Your task to perform on an android device: change notifications settings Image 0: 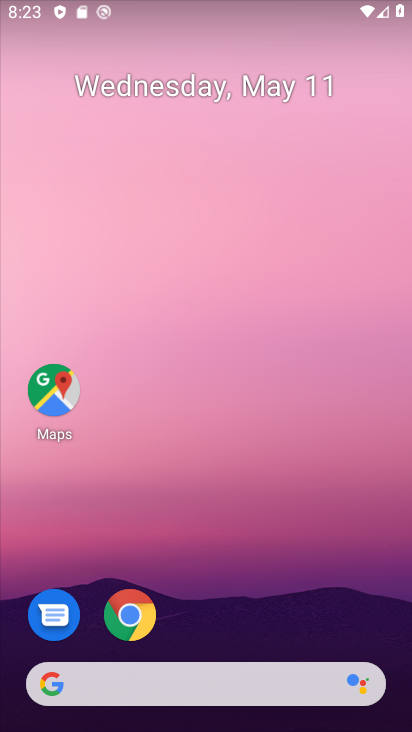
Step 0: drag from (299, 532) to (295, 24)
Your task to perform on an android device: change notifications settings Image 1: 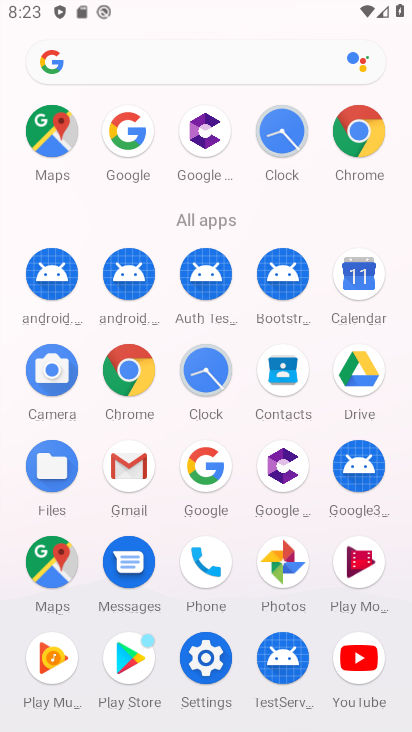
Step 1: drag from (406, 634) to (391, 317)
Your task to perform on an android device: change notifications settings Image 2: 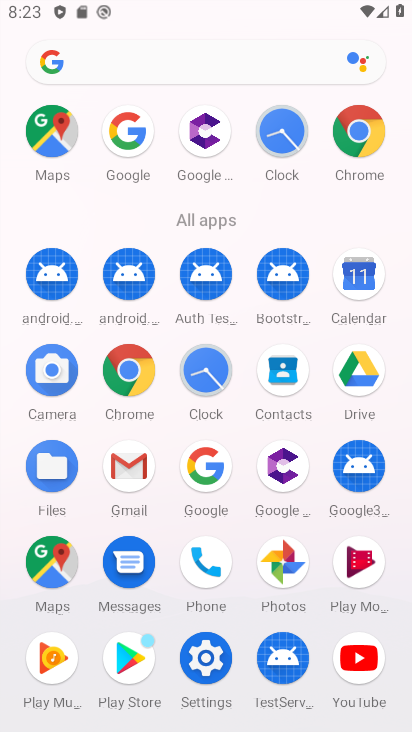
Step 2: click (211, 650)
Your task to perform on an android device: change notifications settings Image 3: 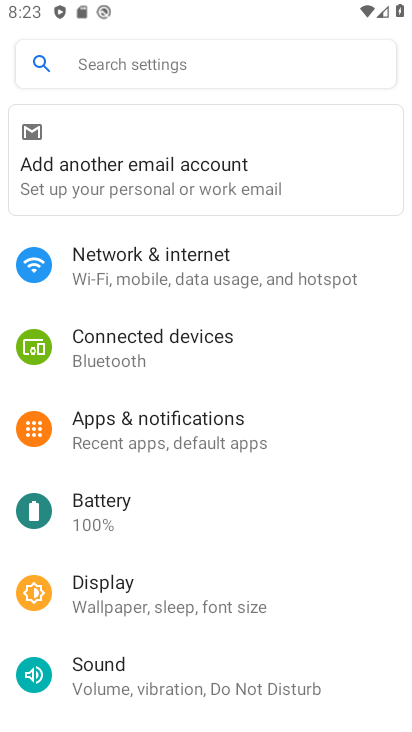
Step 3: click (211, 439)
Your task to perform on an android device: change notifications settings Image 4: 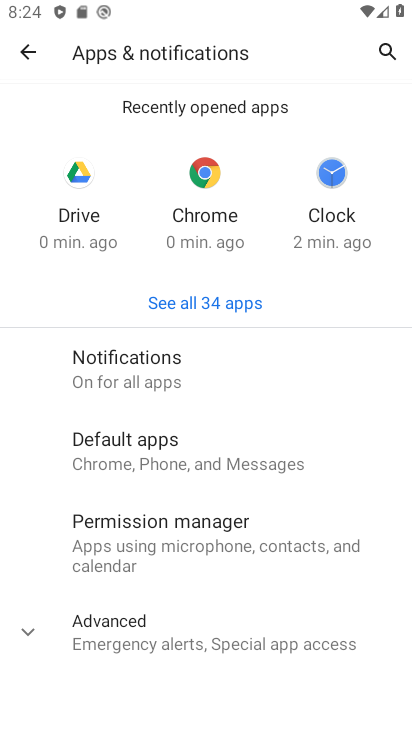
Step 4: click (148, 380)
Your task to perform on an android device: change notifications settings Image 5: 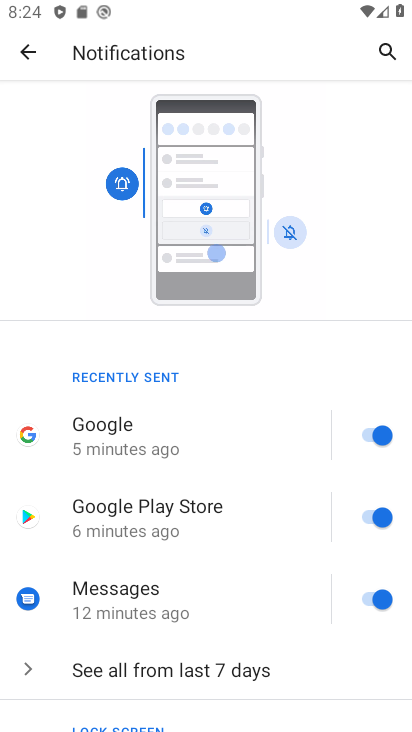
Step 5: drag from (180, 620) to (216, 306)
Your task to perform on an android device: change notifications settings Image 6: 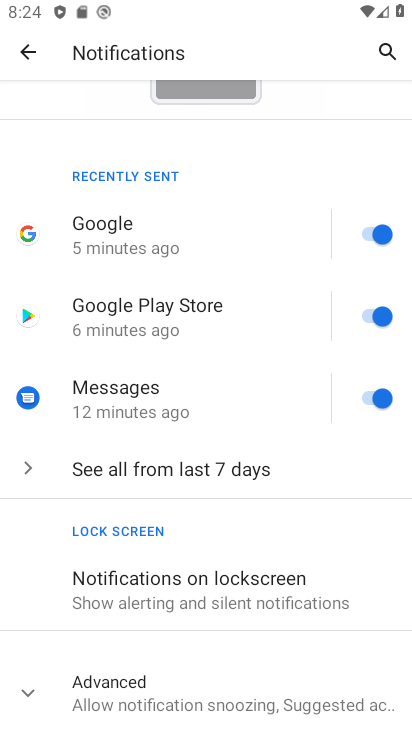
Step 6: drag from (208, 639) to (241, 307)
Your task to perform on an android device: change notifications settings Image 7: 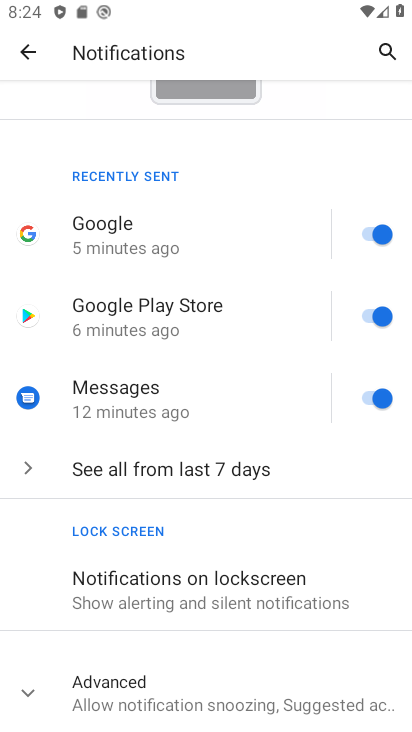
Step 7: click (379, 322)
Your task to perform on an android device: change notifications settings Image 8: 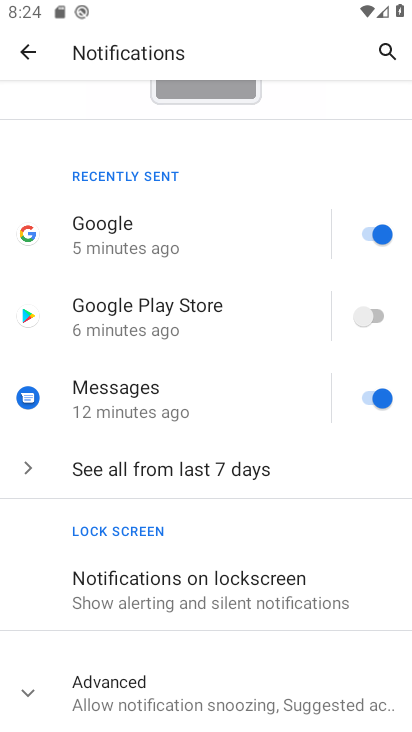
Step 8: task complete